Your task to perform on an android device: toggle airplane mode Image 0: 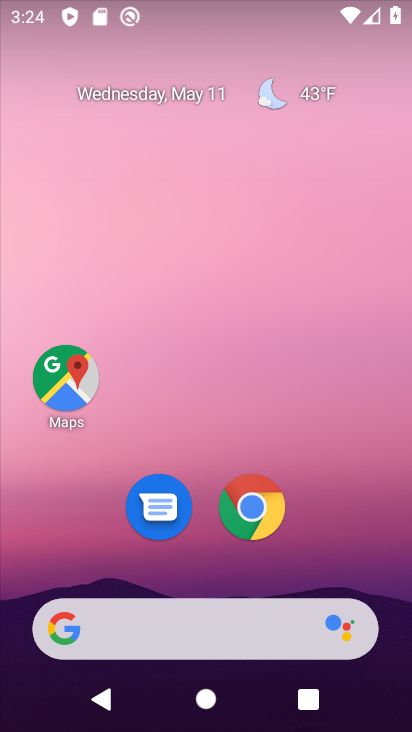
Step 0: drag from (388, 623) to (297, 113)
Your task to perform on an android device: toggle airplane mode Image 1: 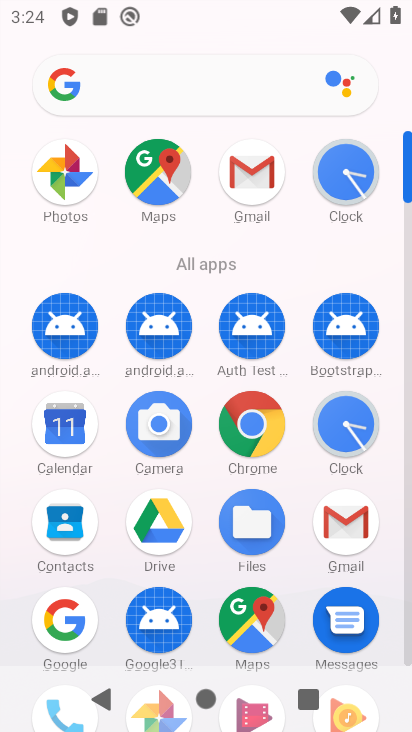
Step 1: click (406, 651)
Your task to perform on an android device: toggle airplane mode Image 2: 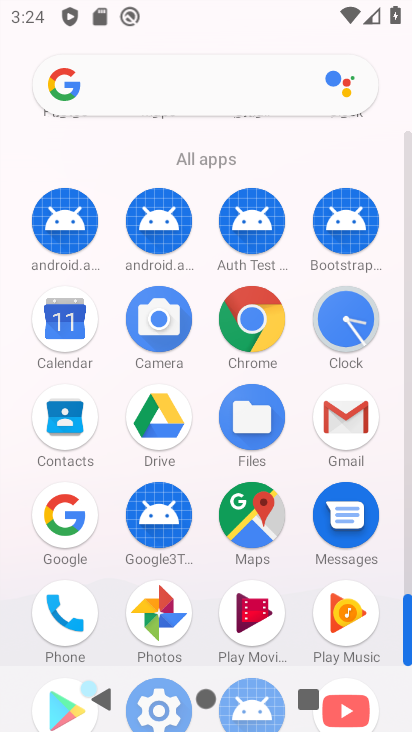
Step 2: drag from (406, 580) to (405, 522)
Your task to perform on an android device: toggle airplane mode Image 3: 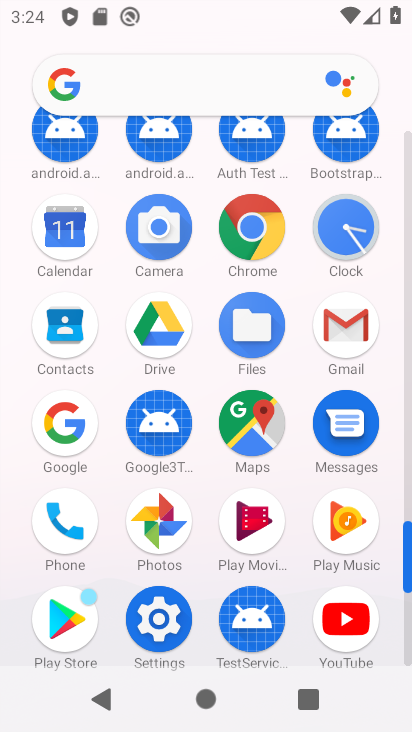
Step 3: click (406, 664)
Your task to perform on an android device: toggle airplane mode Image 4: 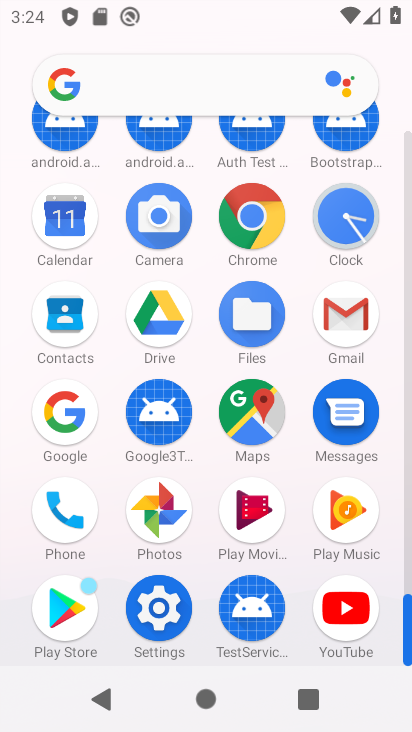
Step 4: click (162, 609)
Your task to perform on an android device: toggle airplane mode Image 5: 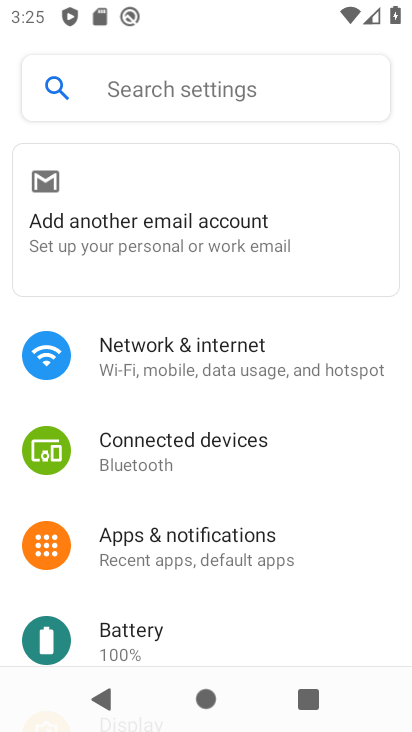
Step 5: click (158, 364)
Your task to perform on an android device: toggle airplane mode Image 6: 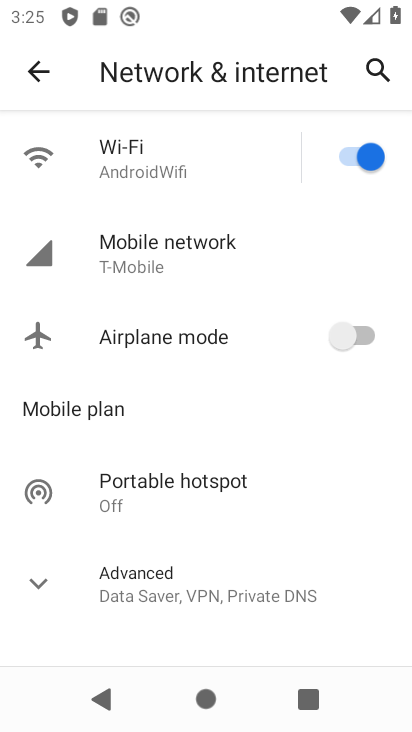
Step 6: click (360, 331)
Your task to perform on an android device: toggle airplane mode Image 7: 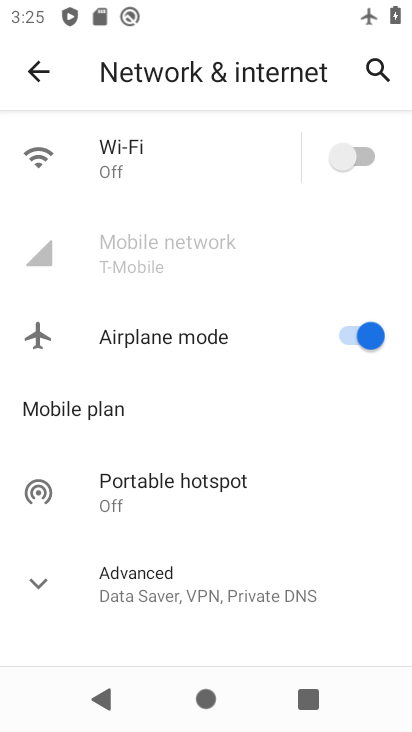
Step 7: task complete